Your task to perform on an android device: Add macbook pro 13 inch to the cart on newegg.com, then select checkout. Image 0: 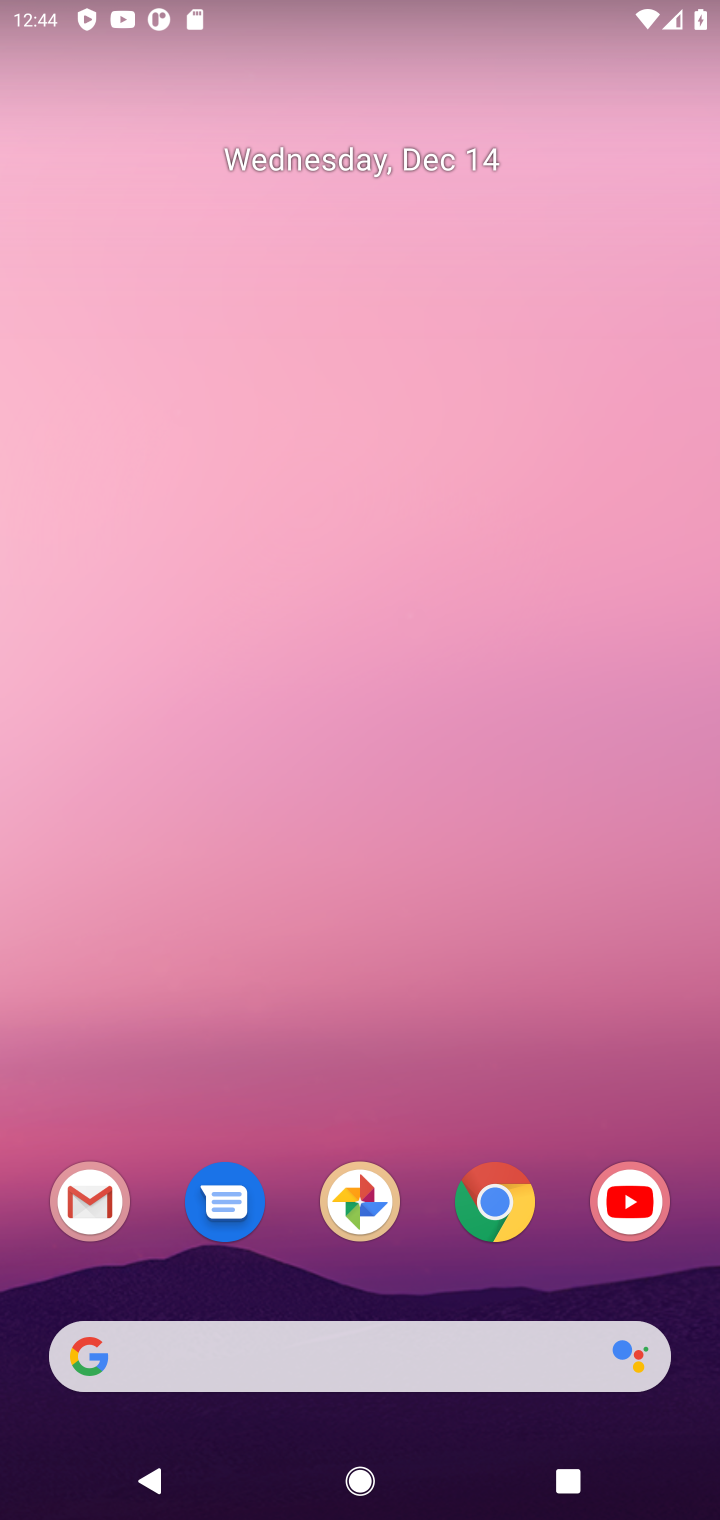
Step 0: click (491, 1211)
Your task to perform on an android device: Add macbook pro 13 inch to the cart on newegg.com, then select checkout. Image 1: 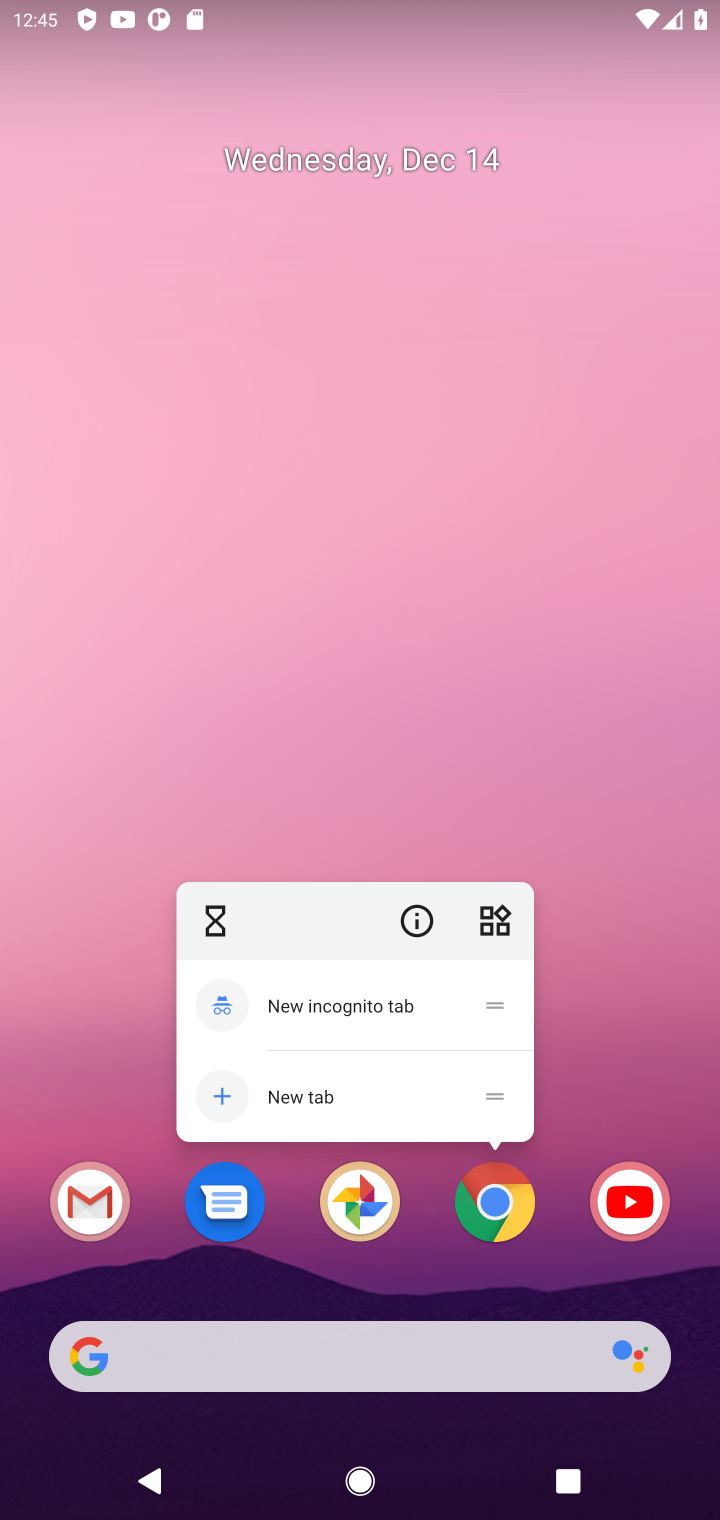
Step 1: click (491, 1211)
Your task to perform on an android device: Add macbook pro 13 inch to the cart on newegg.com, then select checkout. Image 2: 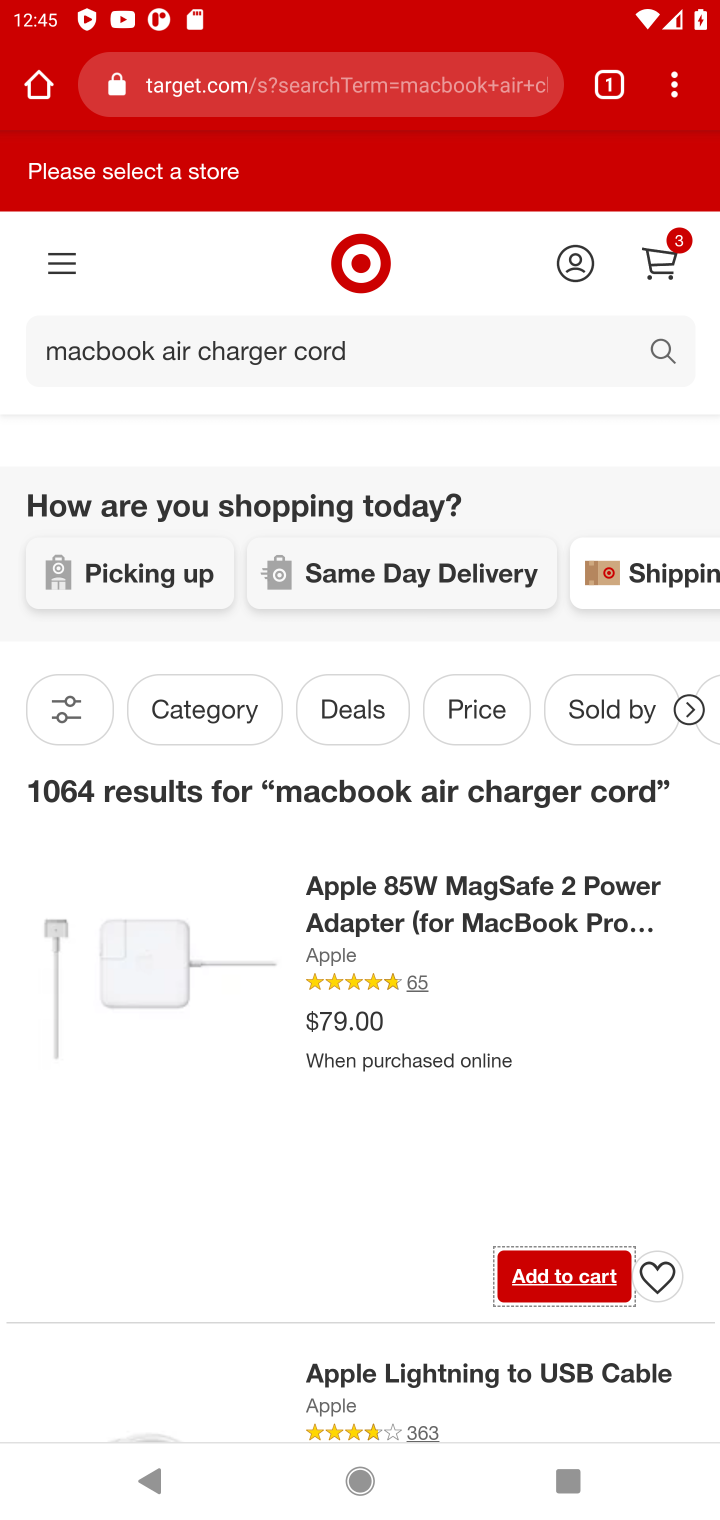
Step 2: click (283, 98)
Your task to perform on an android device: Add macbook pro 13 inch to the cart on newegg.com, then select checkout. Image 3: 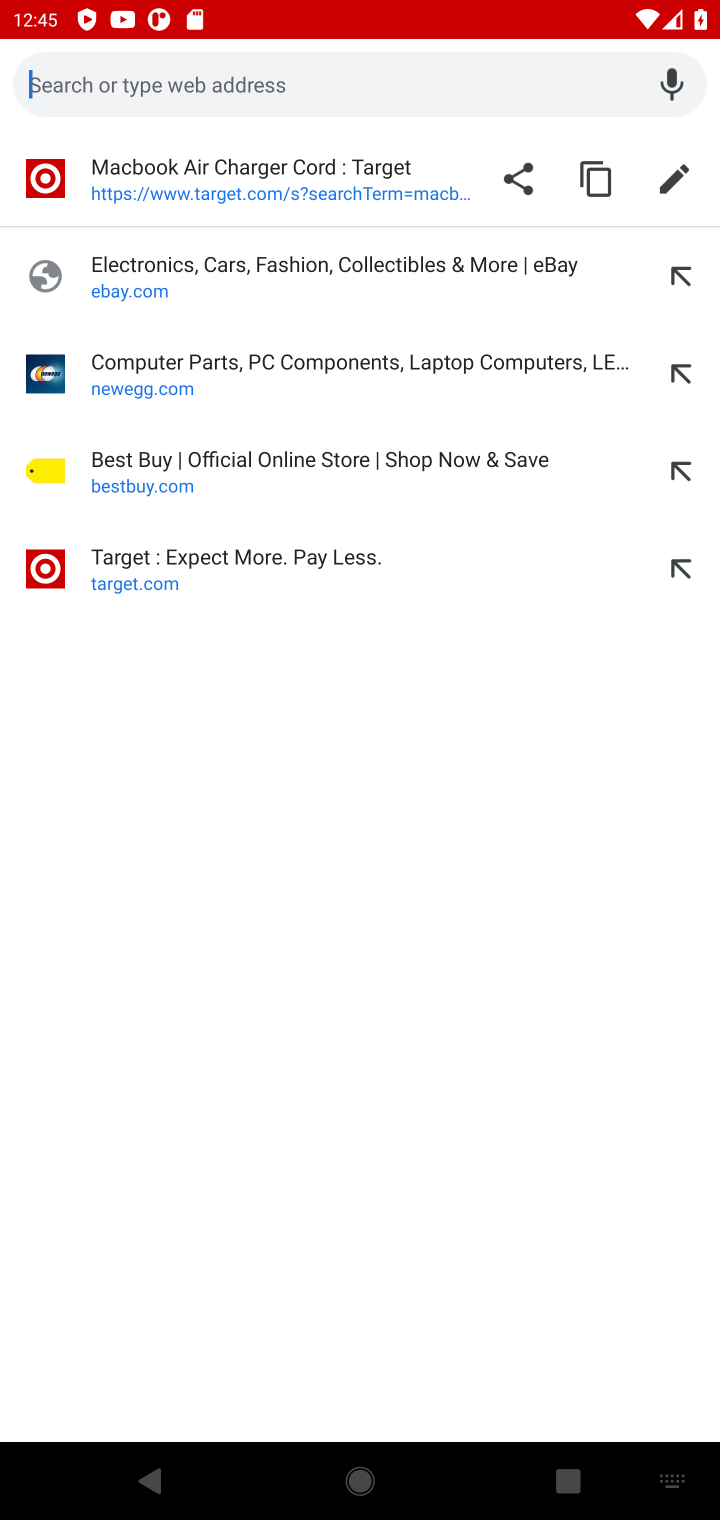
Step 3: type "newegg.com"
Your task to perform on an android device: Add macbook pro 13 inch to the cart on newegg.com, then select checkout. Image 4: 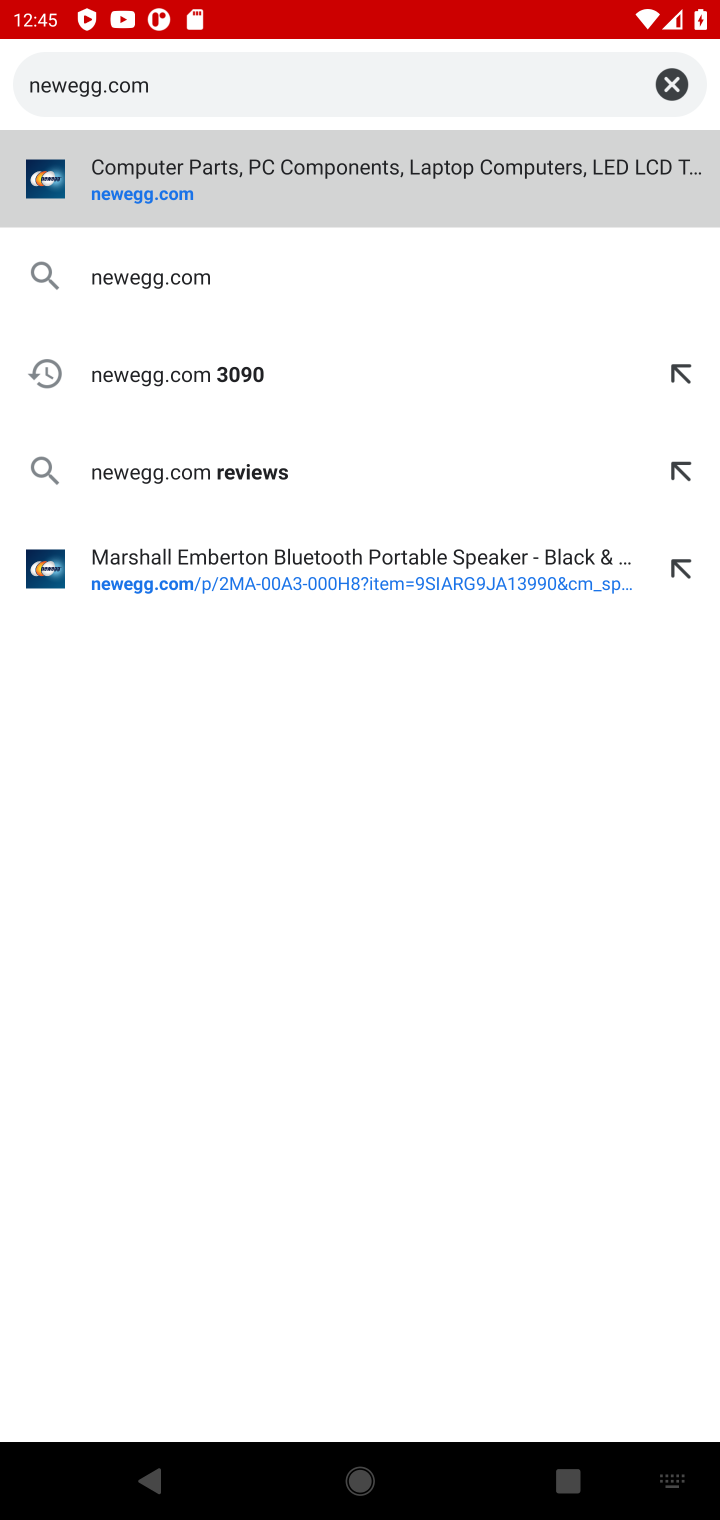
Step 4: click (187, 173)
Your task to perform on an android device: Add macbook pro 13 inch to the cart on newegg.com, then select checkout. Image 5: 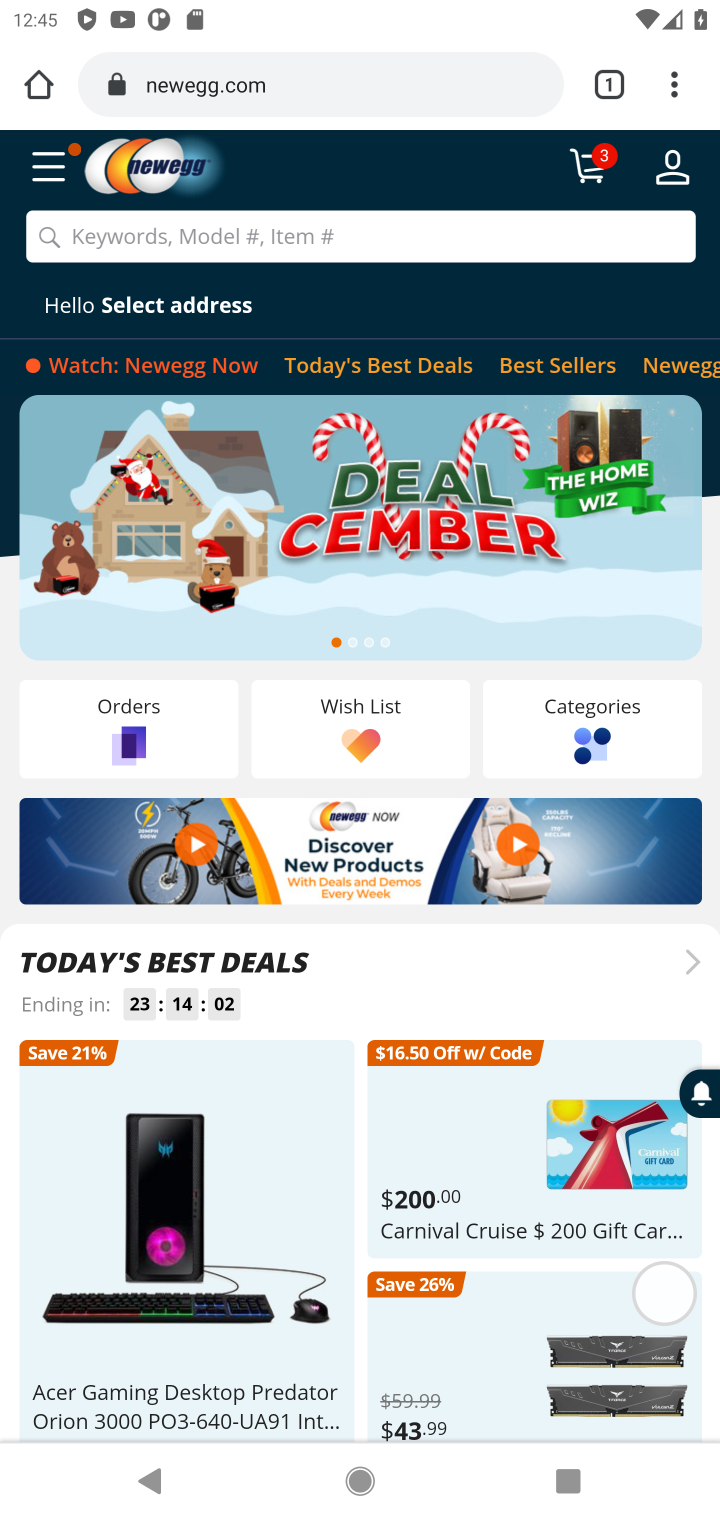
Step 5: click (414, 240)
Your task to perform on an android device: Add macbook pro 13 inch to the cart on newegg.com, then select checkout. Image 6: 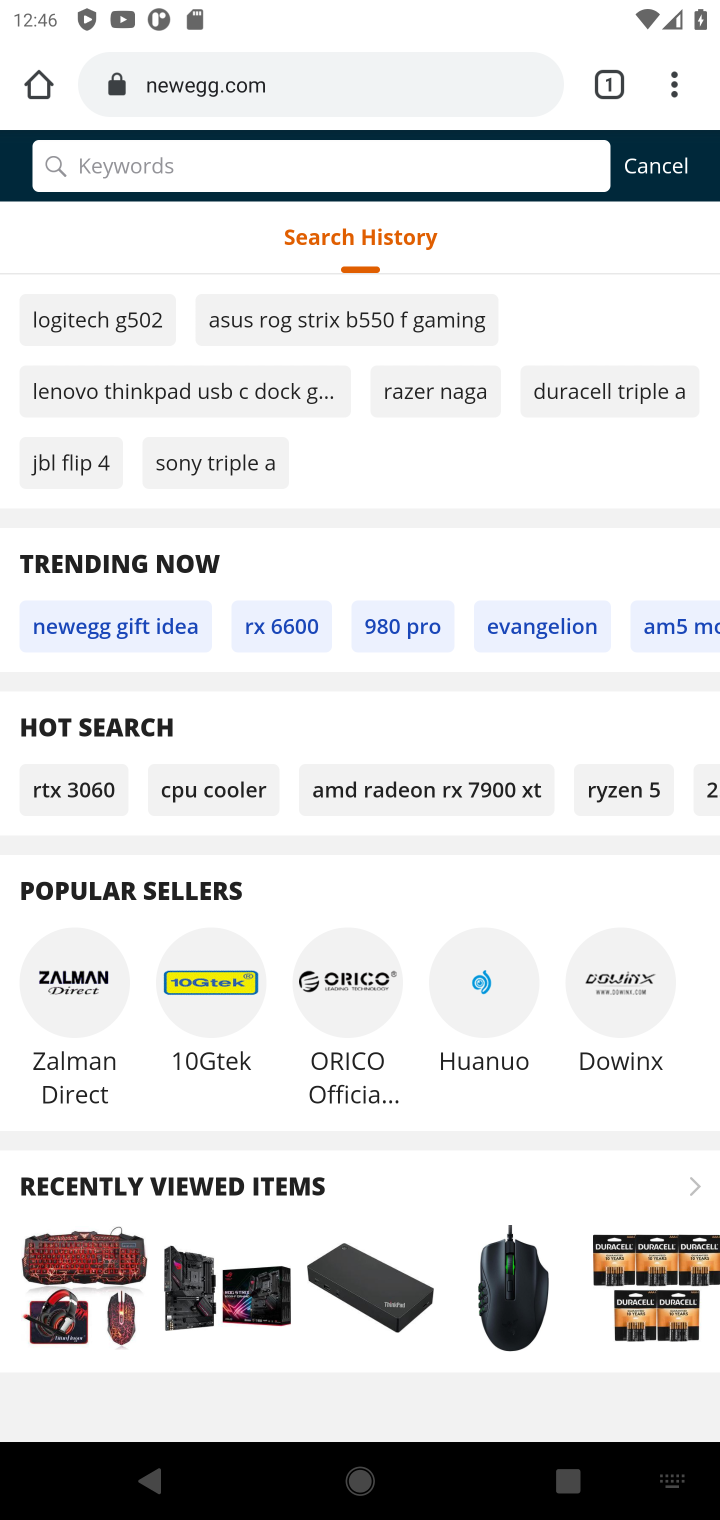
Step 6: click (271, 175)
Your task to perform on an android device: Add macbook pro 13 inch to the cart on newegg.com, then select checkout. Image 7: 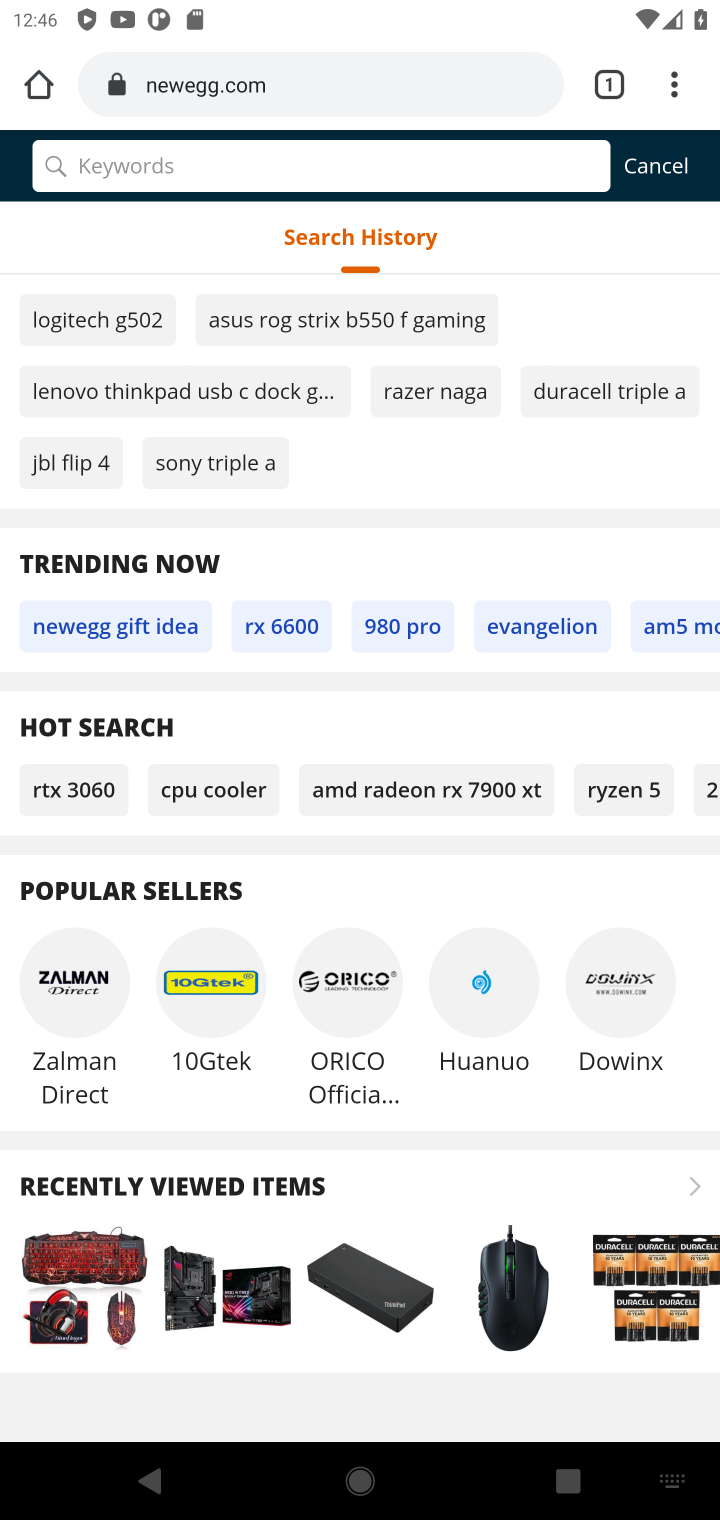
Step 7: type "macbook pro 13 inch"
Your task to perform on an android device: Add macbook pro 13 inch to the cart on newegg.com, then select checkout. Image 8: 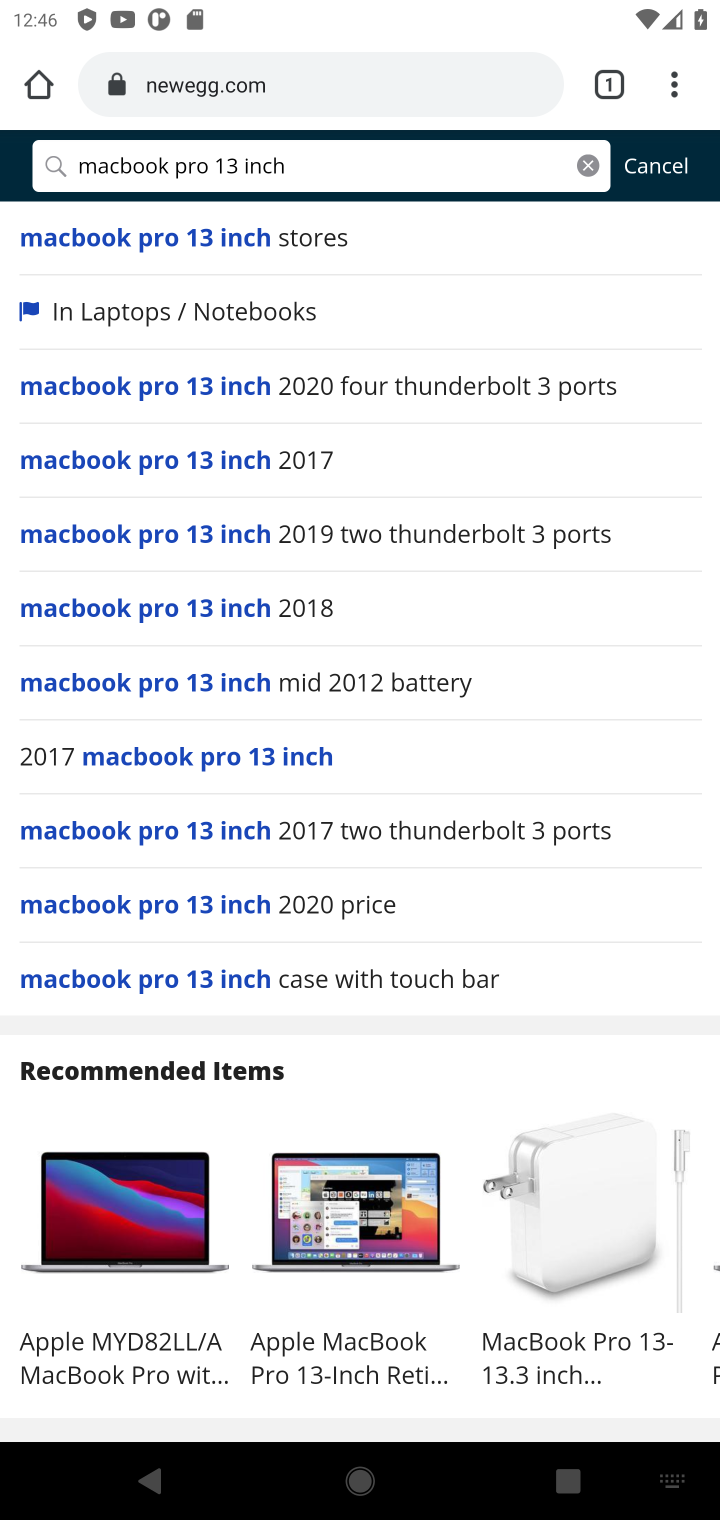
Step 8: click (199, 234)
Your task to perform on an android device: Add macbook pro 13 inch to the cart on newegg.com, then select checkout. Image 9: 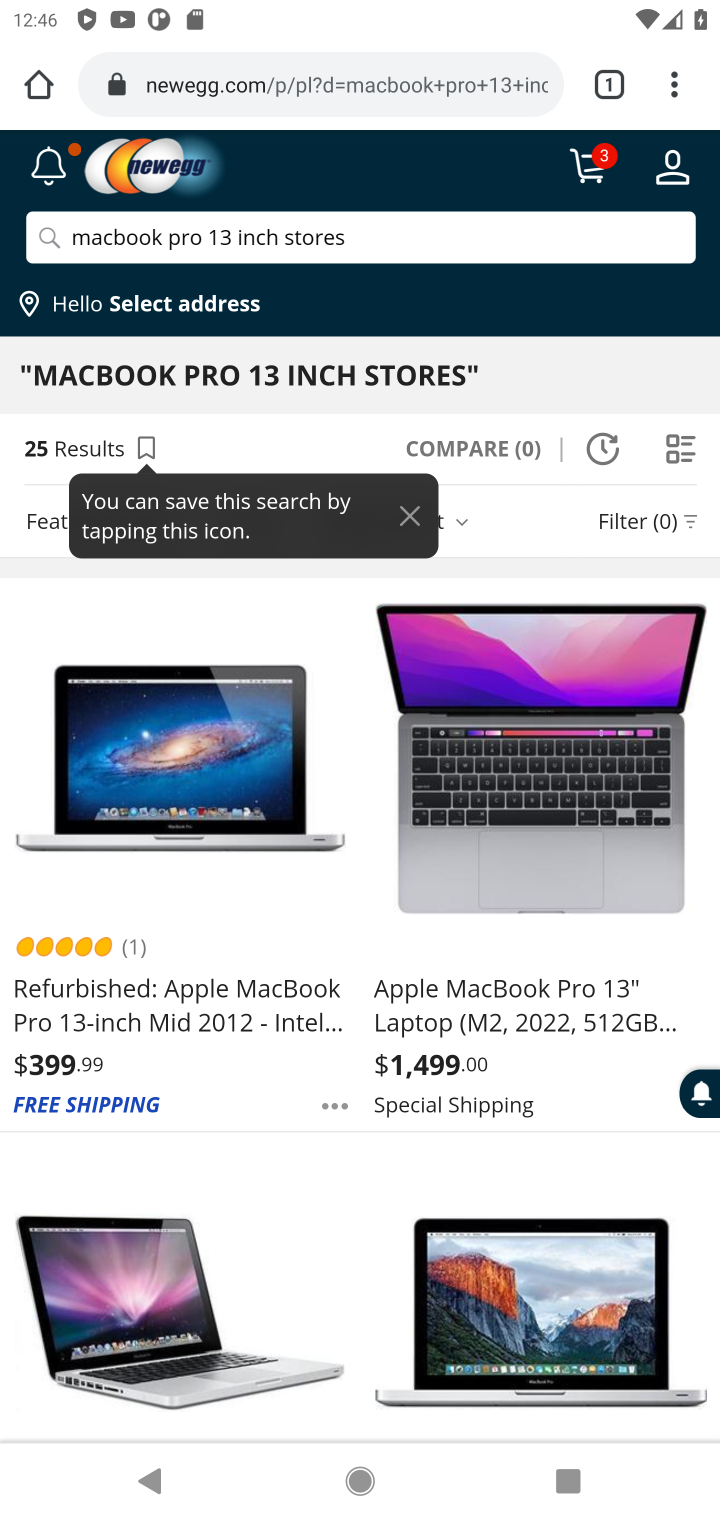
Step 9: click (197, 809)
Your task to perform on an android device: Add macbook pro 13 inch to the cart on newegg.com, then select checkout. Image 10: 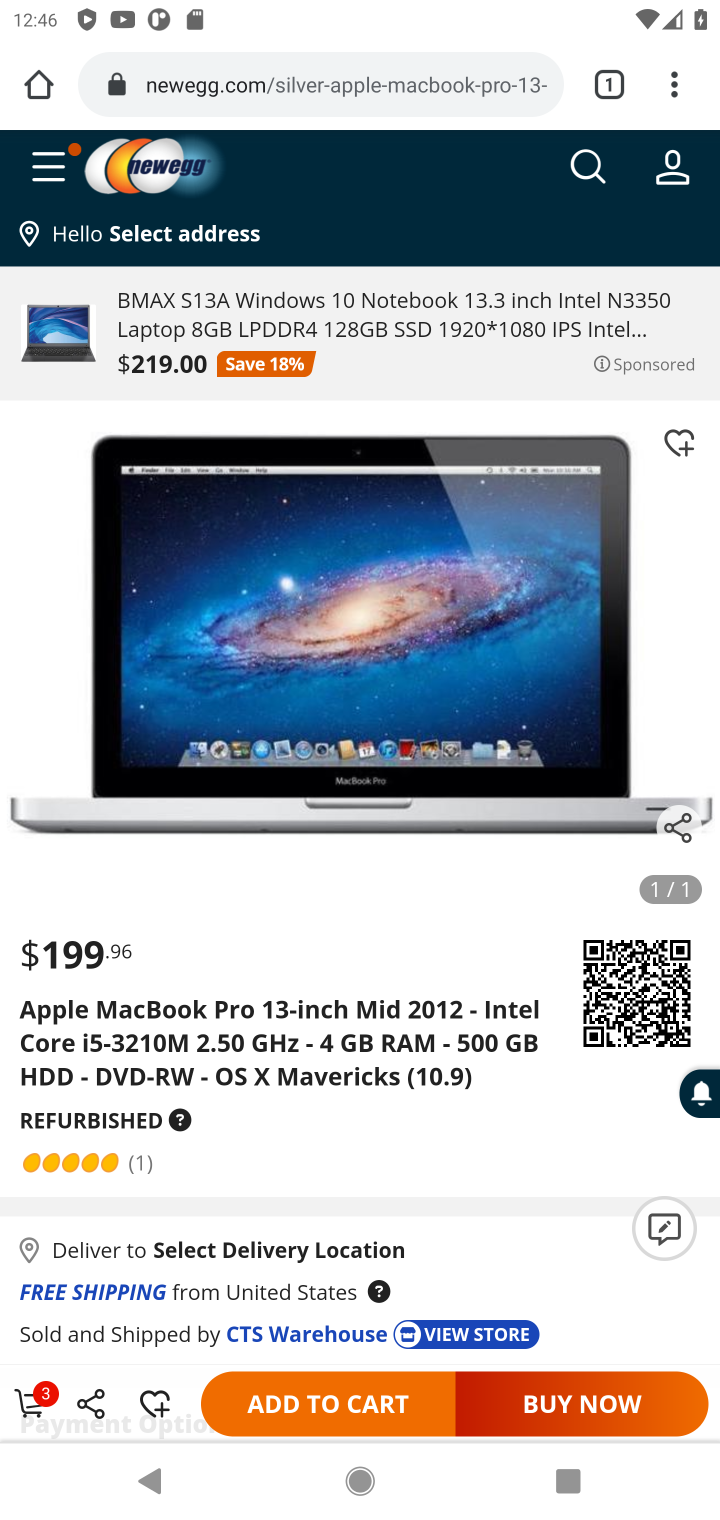
Step 10: click (279, 1408)
Your task to perform on an android device: Add macbook pro 13 inch to the cart on newegg.com, then select checkout. Image 11: 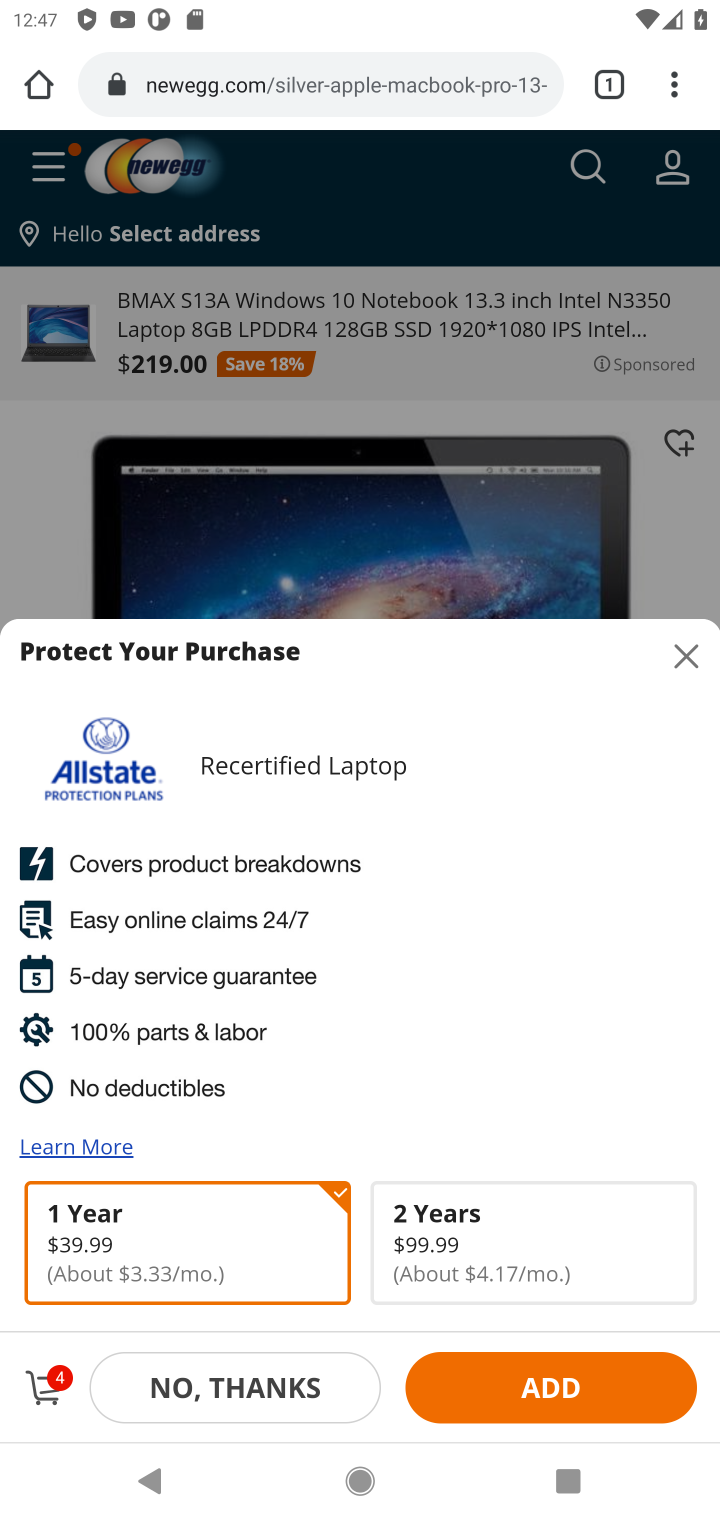
Step 11: click (49, 1383)
Your task to perform on an android device: Add macbook pro 13 inch to the cart on newegg.com, then select checkout. Image 12: 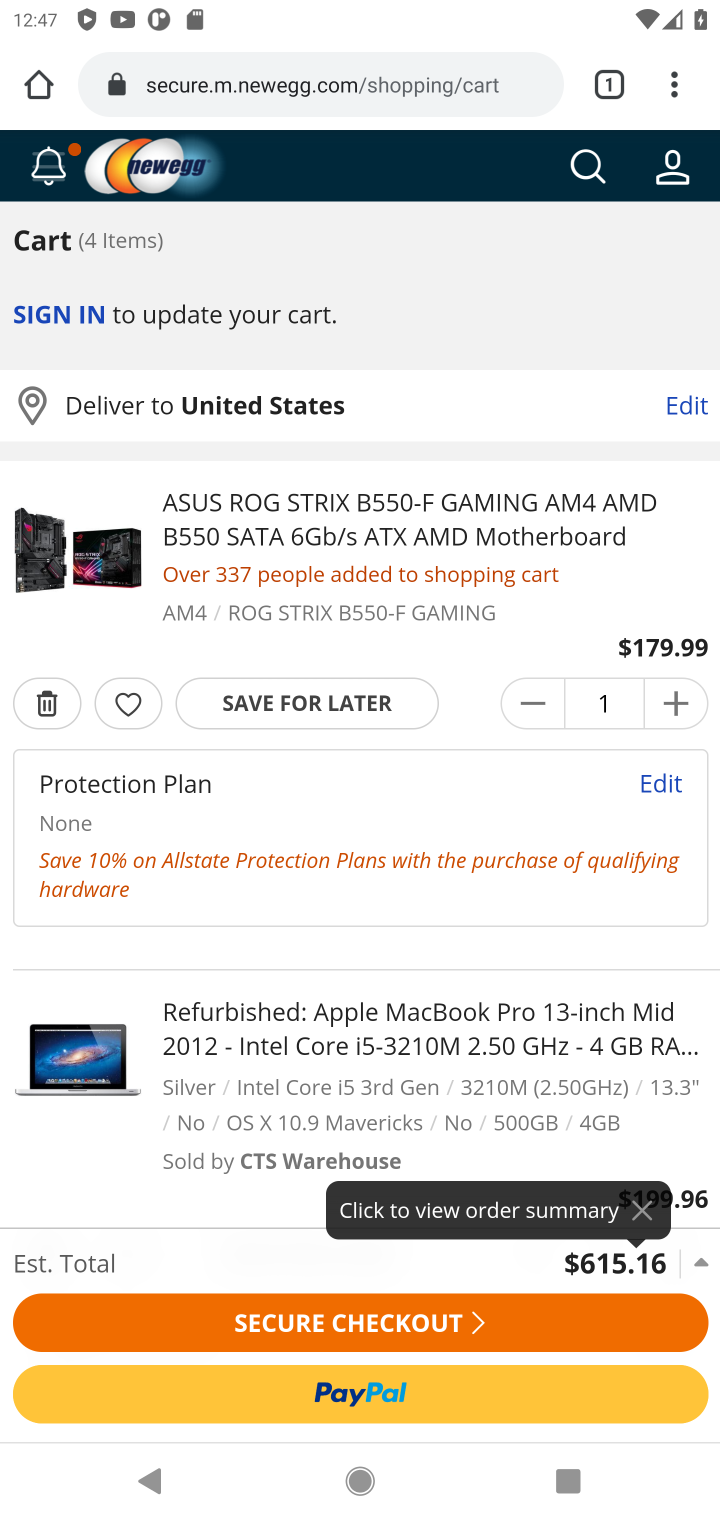
Step 12: click (356, 1326)
Your task to perform on an android device: Add macbook pro 13 inch to the cart on newegg.com, then select checkout. Image 13: 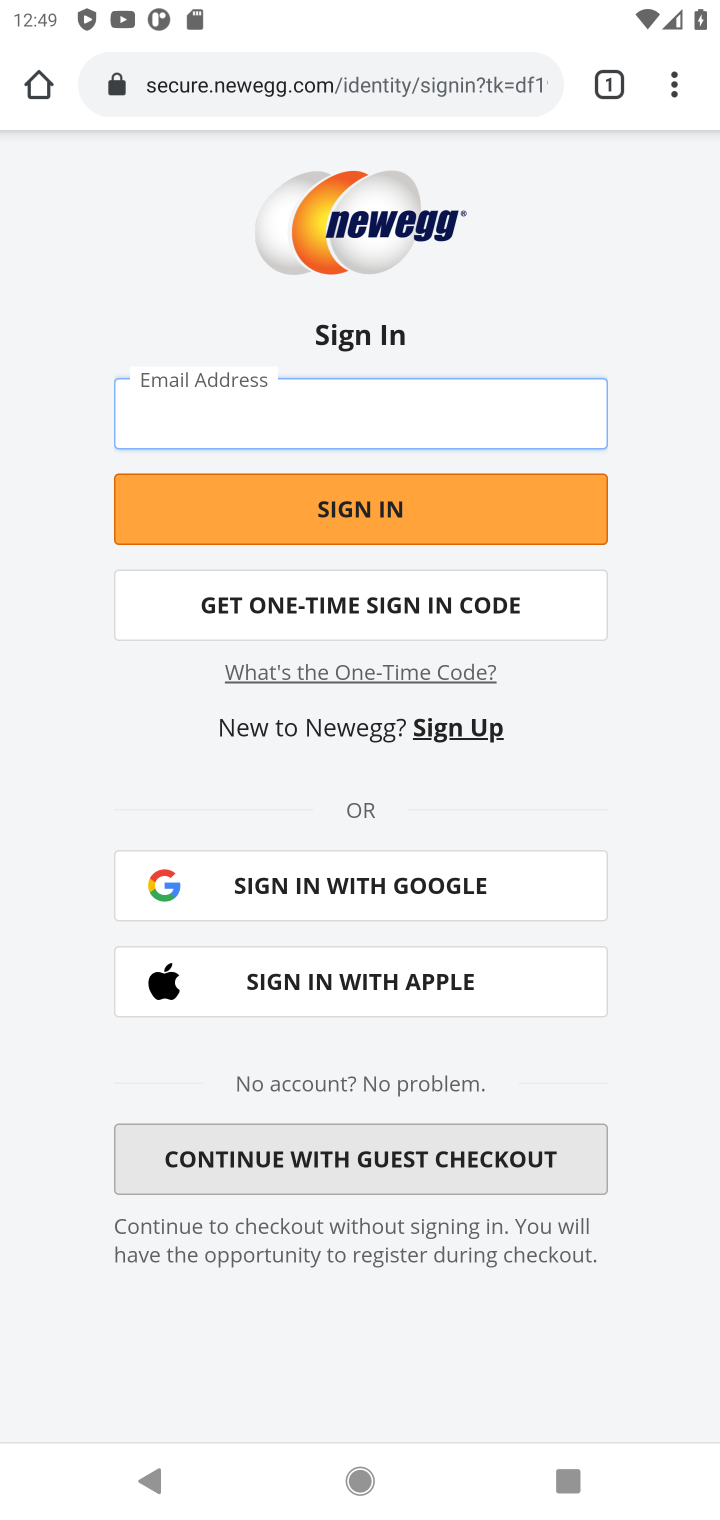
Step 13: task complete